Your task to perform on an android device: What's on my calendar today? Image 0: 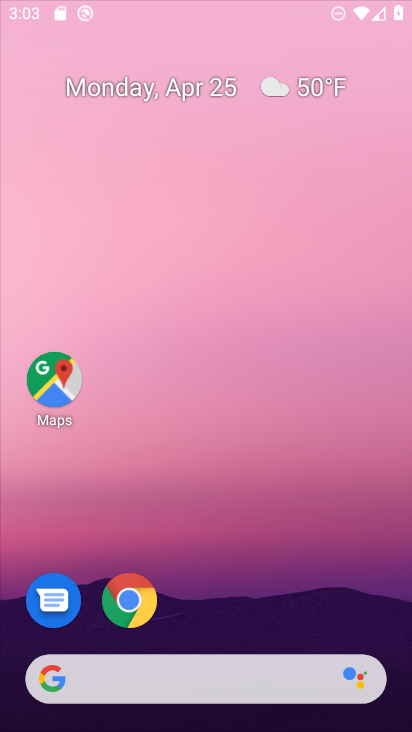
Step 0: drag from (198, 285) to (198, 87)
Your task to perform on an android device: What's on my calendar today? Image 1: 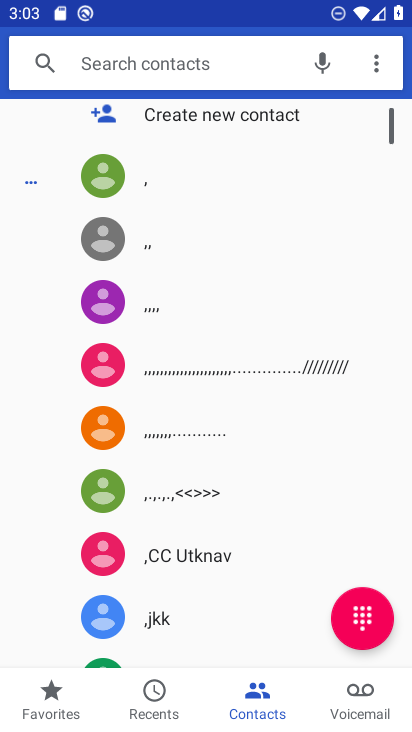
Step 1: press home button
Your task to perform on an android device: What's on my calendar today? Image 2: 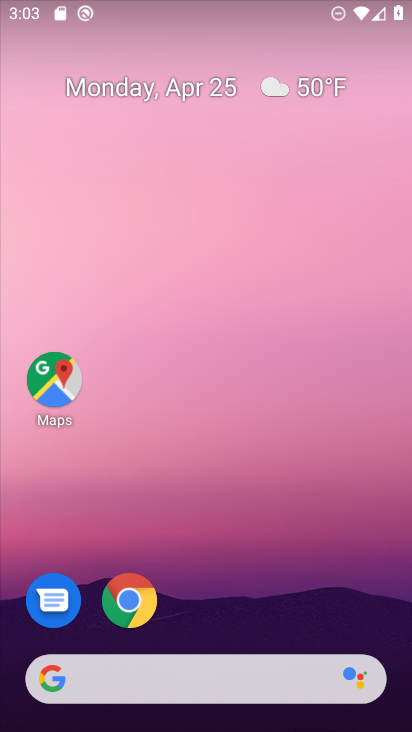
Step 2: drag from (235, 630) to (177, 74)
Your task to perform on an android device: What's on my calendar today? Image 3: 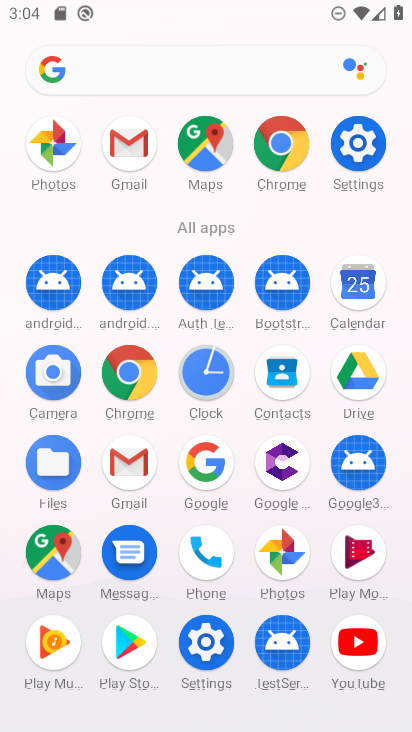
Step 3: click (358, 283)
Your task to perform on an android device: What's on my calendar today? Image 4: 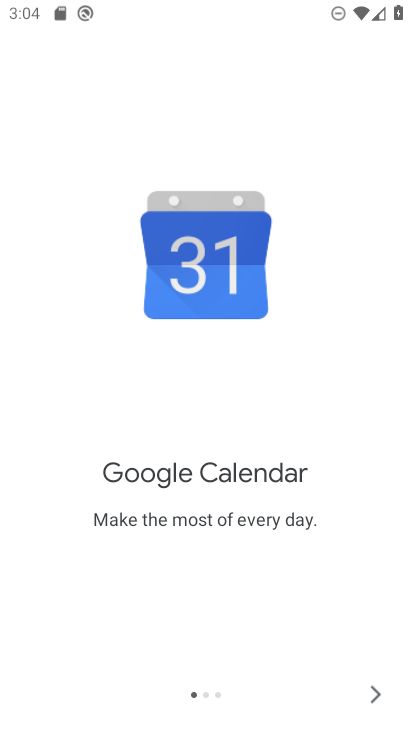
Step 4: click (379, 688)
Your task to perform on an android device: What's on my calendar today? Image 5: 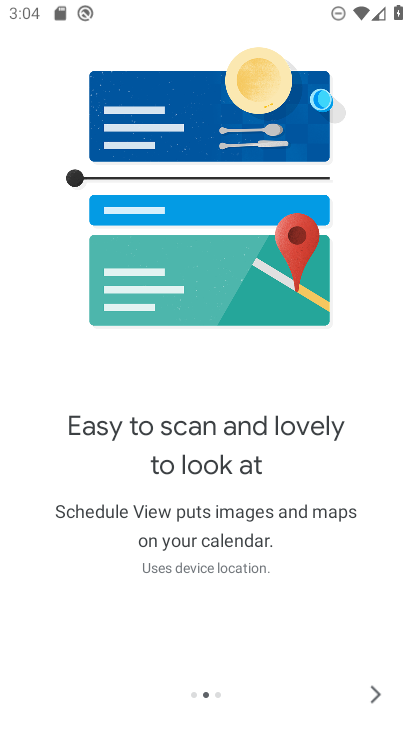
Step 5: click (358, 700)
Your task to perform on an android device: What's on my calendar today? Image 6: 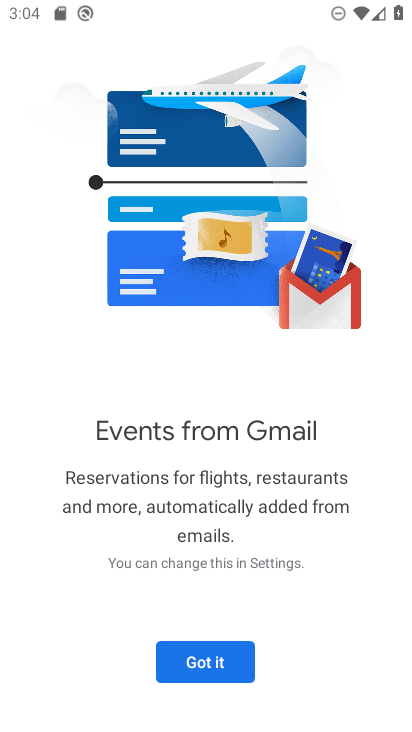
Step 6: click (232, 658)
Your task to perform on an android device: What's on my calendar today? Image 7: 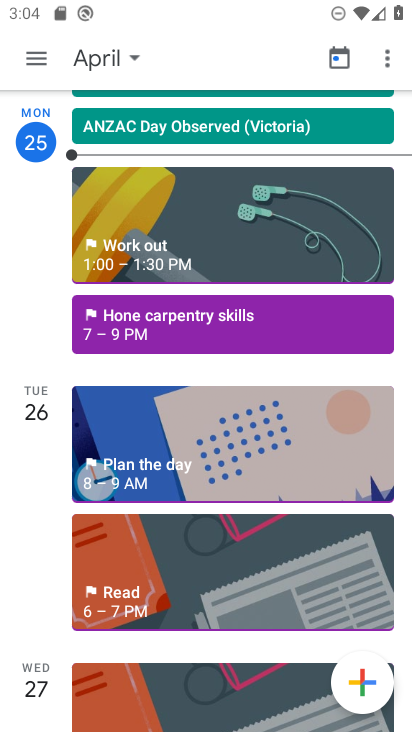
Step 7: click (32, 72)
Your task to perform on an android device: What's on my calendar today? Image 8: 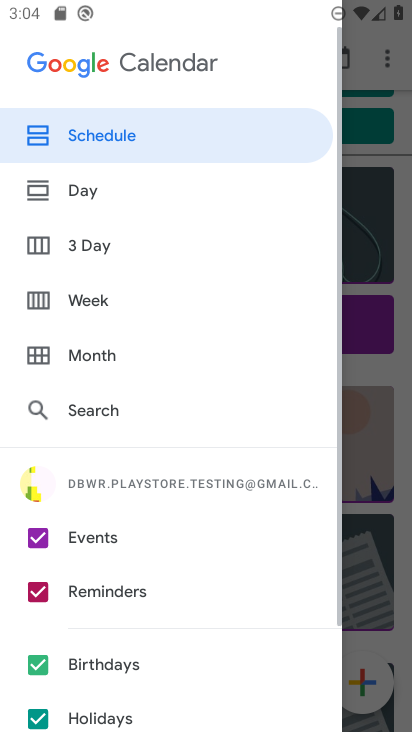
Step 8: click (88, 189)
Your task to perform on an android device: What's on my calendar today? Image 9: 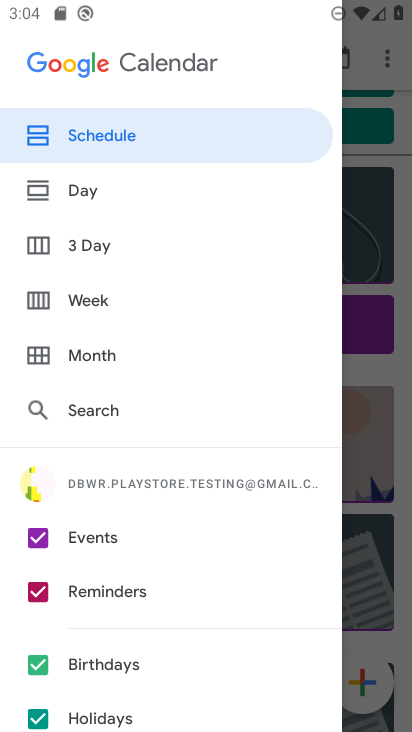
Step 9: click (132, 196)
Your task to perform on an android device: What's on my calendar today? Image 10: 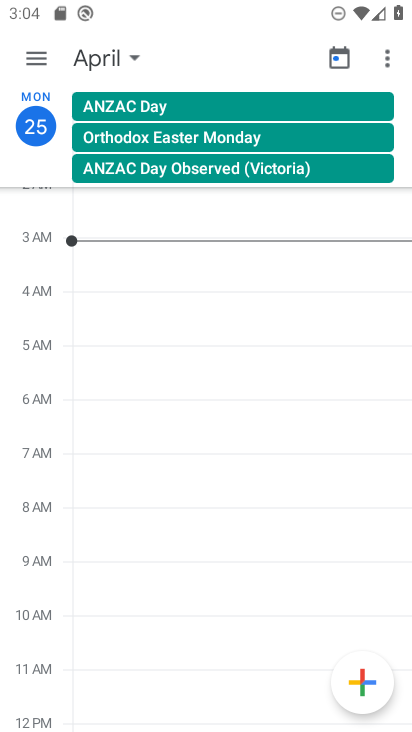
Step 10: task complete